Your task to perform on an android device: Go to ESPN.com Image 0: 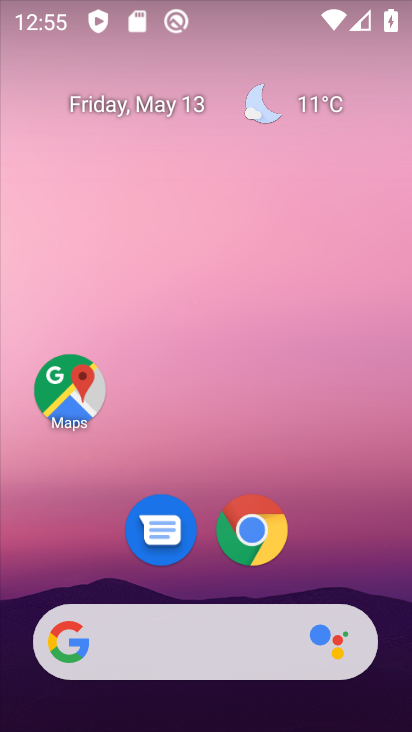
Step 0: click (243, 540)
Your task to perform on an android device: Go to ESPN.com Image 1: 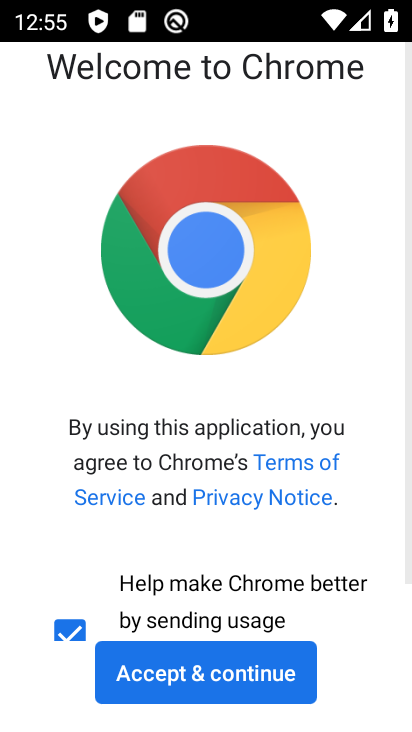
Step 1: click (178, 672)
Your task to perform on an android device: Go to ESPN.com Image 2: 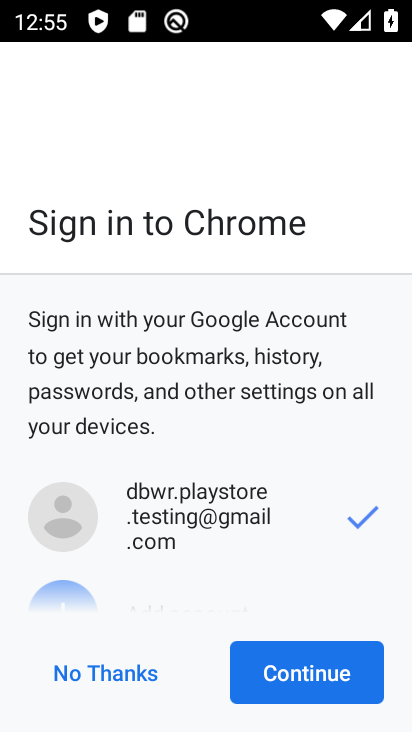
Step 2: click (273, 670)
Your task to perform on an android device: Go to ESPN.com Image 3: 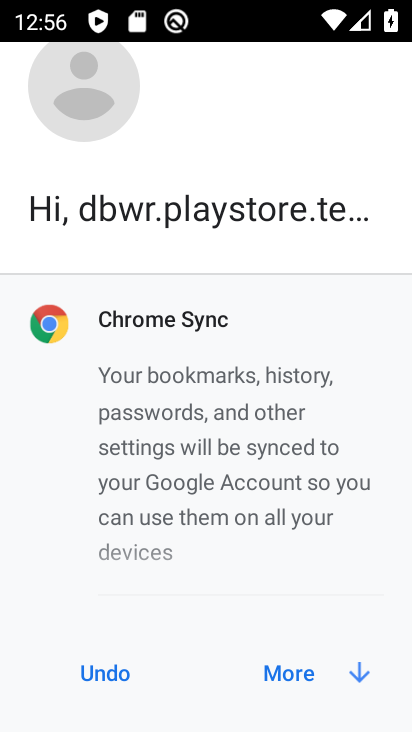
Step 3: click (278, 685)
Your task to perform on an android device: Go to ESPN.com Image 4: 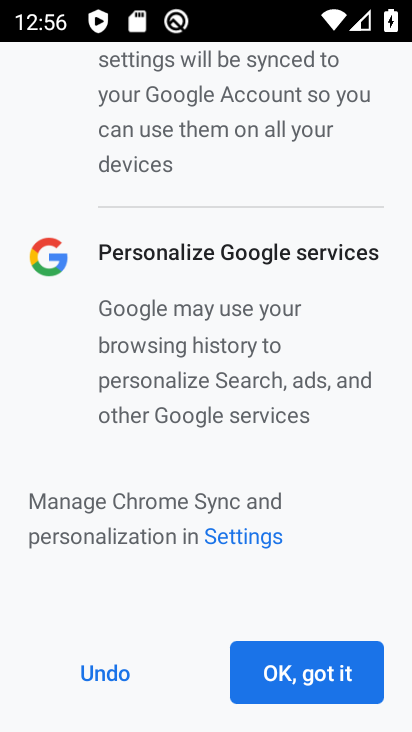
Step 4: click (279, 684)
Your task to perform on an android device: Go to ESPN.com Image 5: 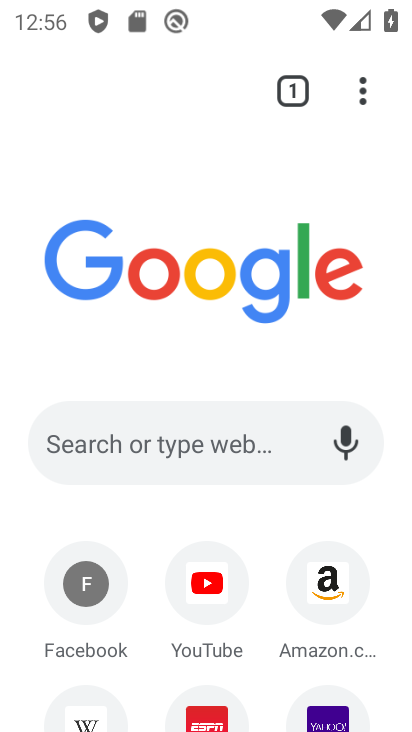
Step 5: drag from (254, 691) to (251, 384)
Your task to perform on an android device: Go to ESPN.com Image 6: 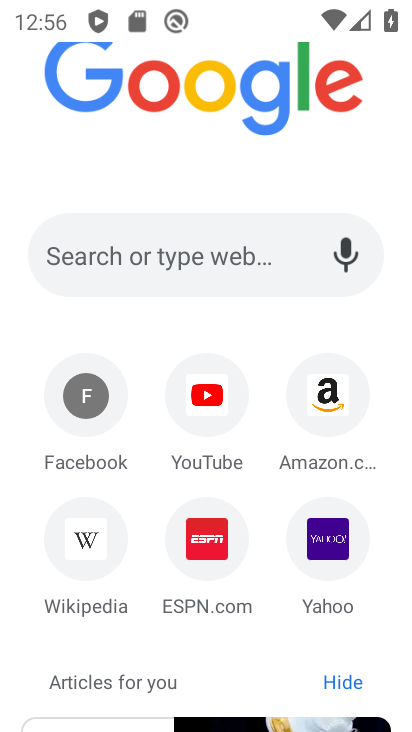
Step 6: click (209, 550)
Your task to perform on an android device: Go to ESPN.com Image 7: 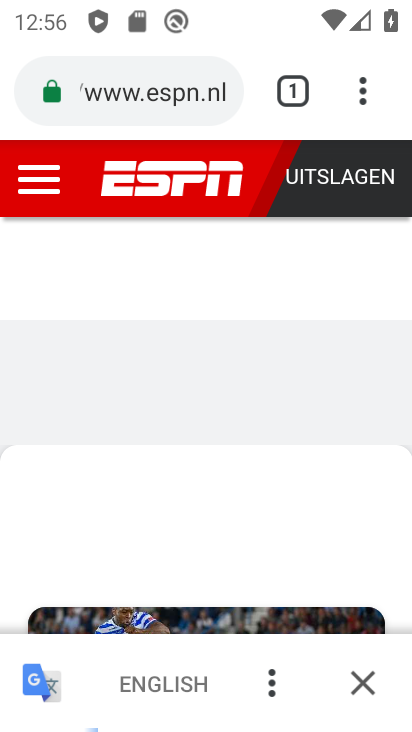
Step 7: task complete